Your task to perform on an android device: Go to Reddit.com Image 0: 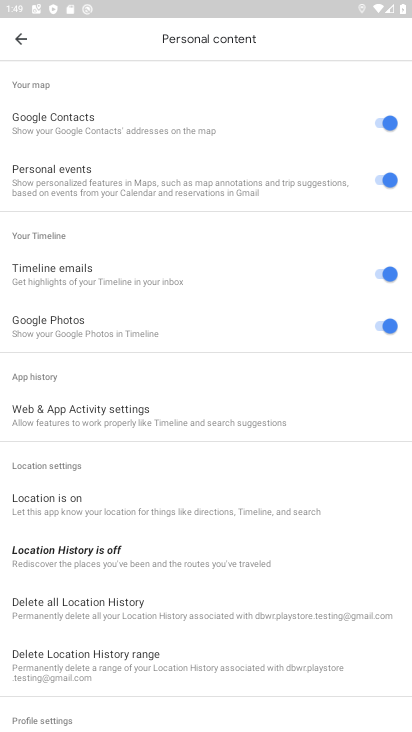
Step 0: click (26, 49)
Your task to perform on an android device: Go to Reddit.com Image 1: 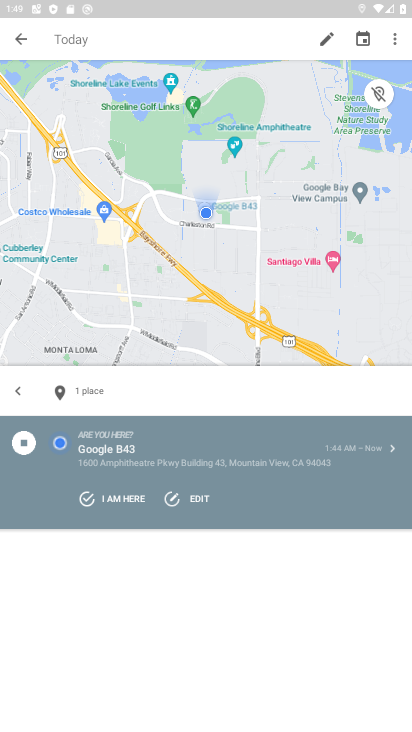
Step 1: press home button
Your task to perform on an android device: Go to Reddit.com Image 2: 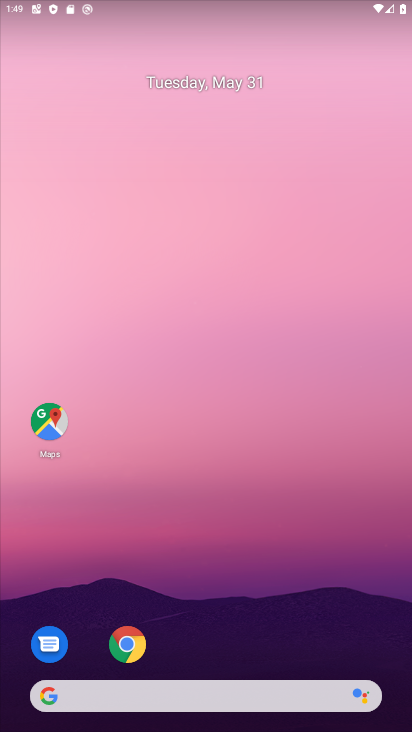
Step 2: click (132, 646)
Your task to perform on an android device: Go to Reddit.com Image 3: 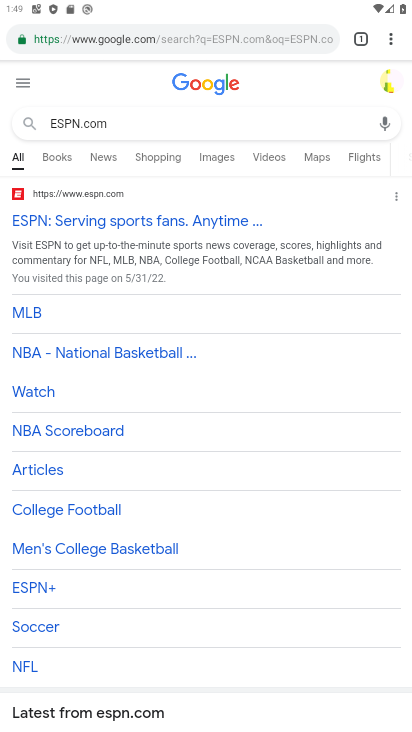
Step 3: click (336, 42)
Your task to perform on an android device: Go to Reddit.com Image 4: 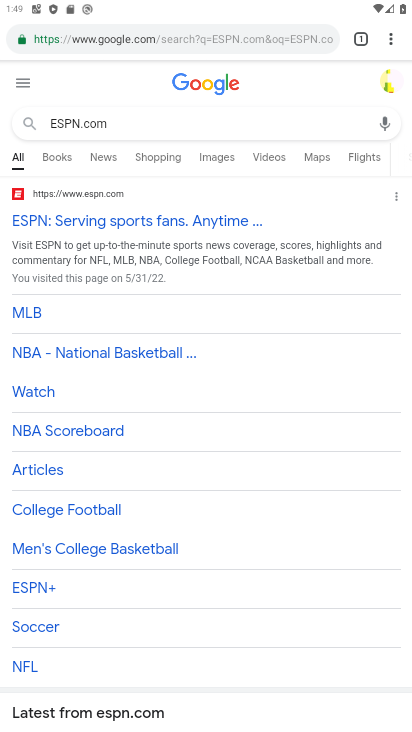
Step 4: click (327, 37)
Your task to perform on an android device: Go to Reddit.com Image 5: 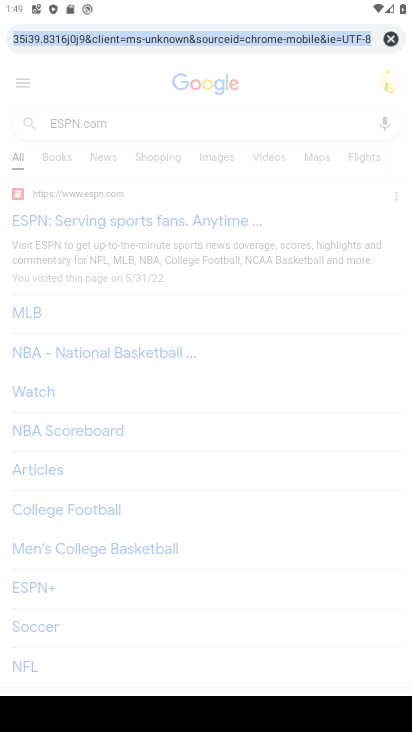
Step 5: click (392, 38)
Your task to perform on an android device: Go to Reddit.com Image 6: 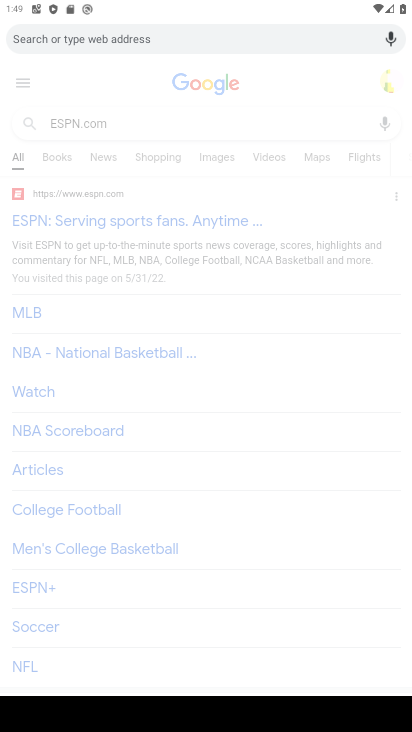
Step 6: type "Reddit.com"
Your task to perform on an android device: Go to Reddit.com Image 7: 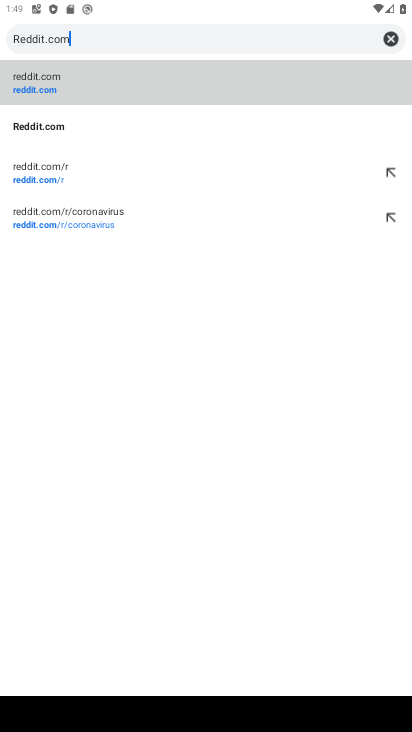
Step 7: click (26, 122)
Your task to perform on an android device: Go to Reddit.com Image 8: 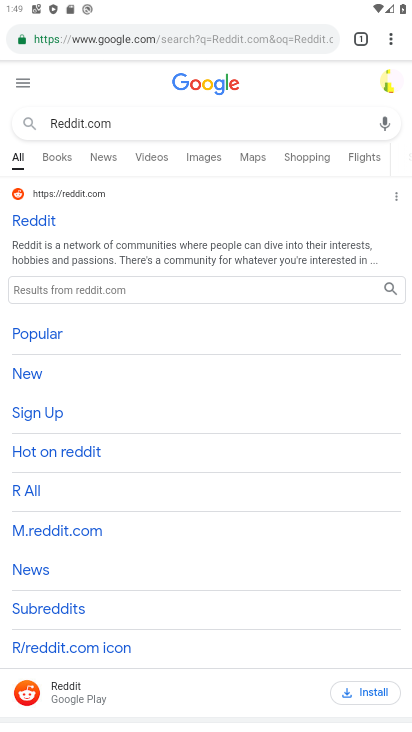
Step 8: task complete